Your task to perform on an android device: open app "Flipkart Online Shopping App" (install if not already installed), go to login, and select forgot password Image 0: 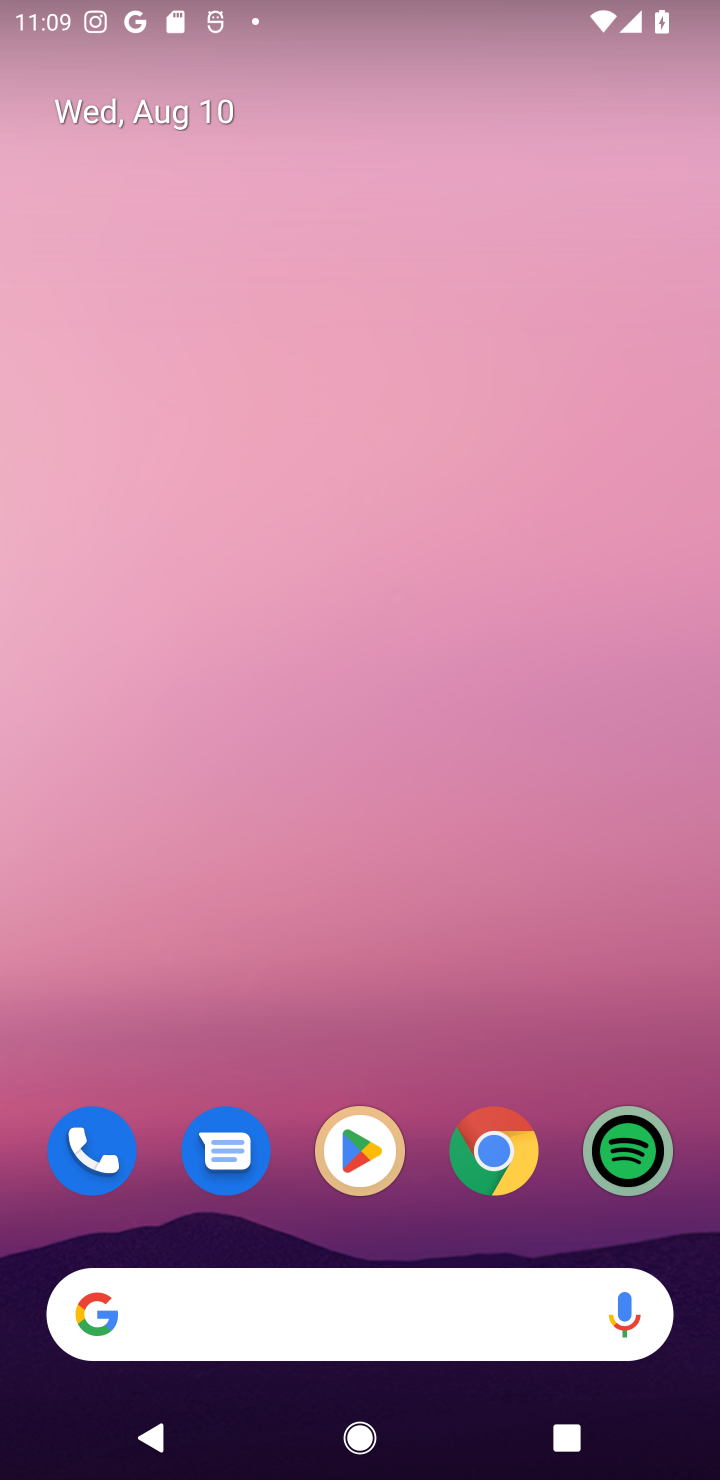
Step 0: click (322, 1140)
Your task to perform on an android device: open app "Flipkart Online Shopping App" (install if not already installed), go to login, and select forgot password Image 1: 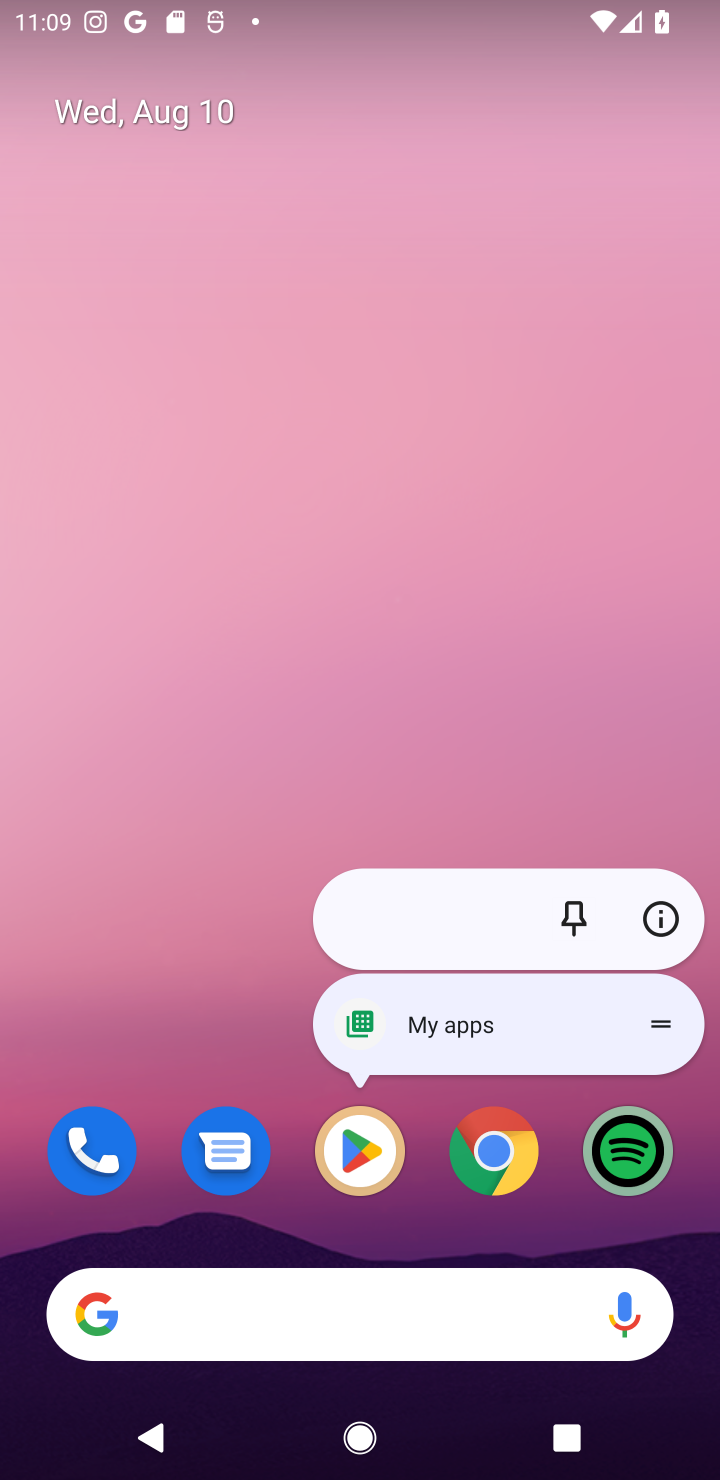
Step 1: click (362, 1150)
Your task to perform on an android device: open app "Flipkart Online Shopping App" (install if not already installed), go to login, and select forgot password Image 2: 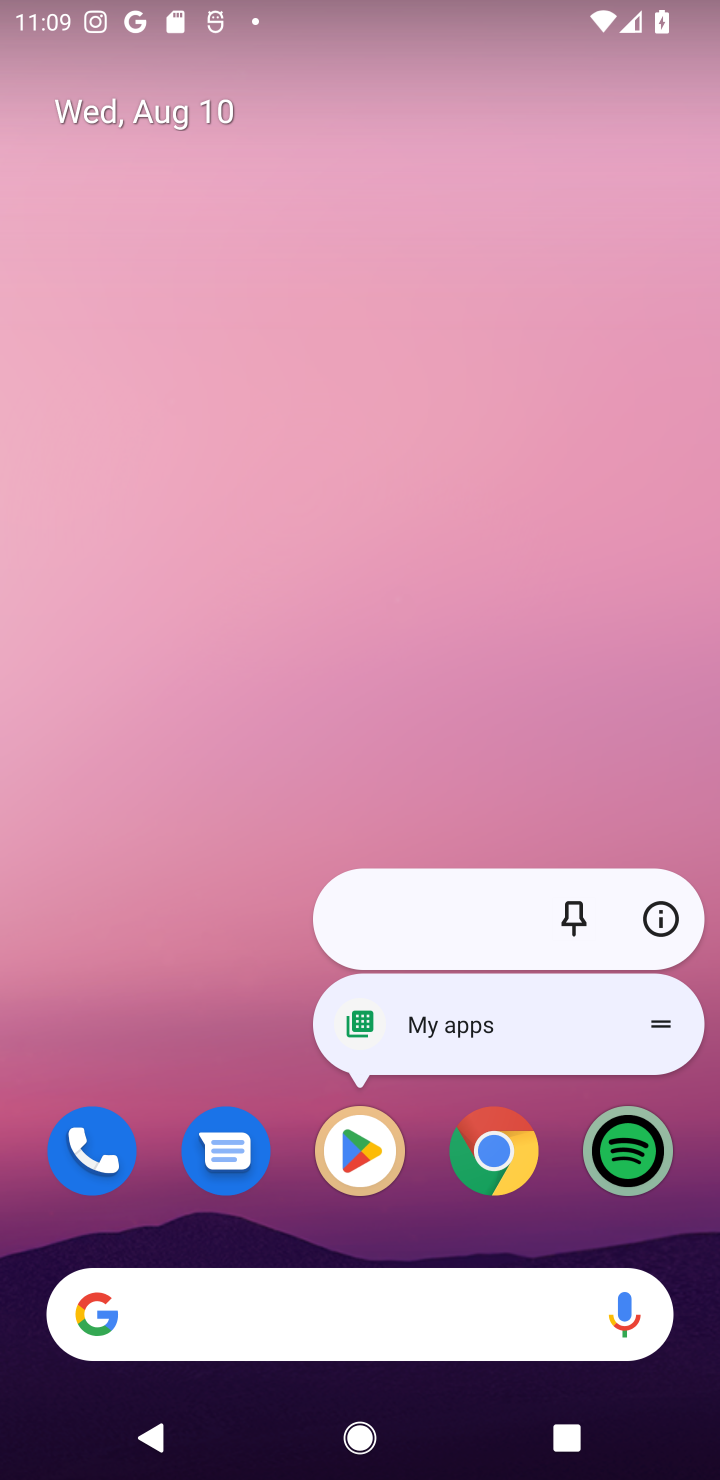
Step 2: click (362, 1150)
Your task to perform on an android device: open app "Flipkart Online Shopping App" (install if not already installed), go to login, and select forgot password Image 3: 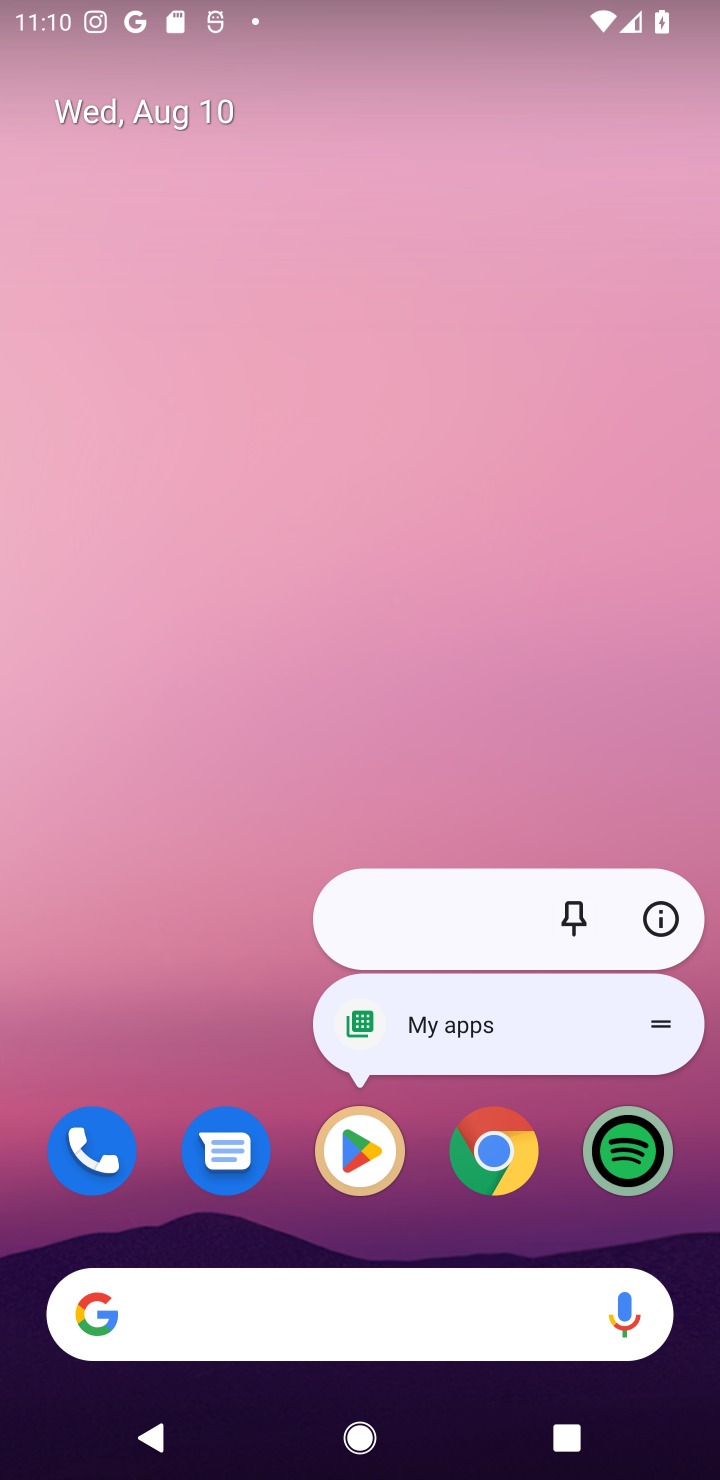
Step 3: click (376, 1146)
Your task to perform on an android device: open app "Flipkart Online Shopping App" (install if not already installed), go to login, and select forgot password Image 4: 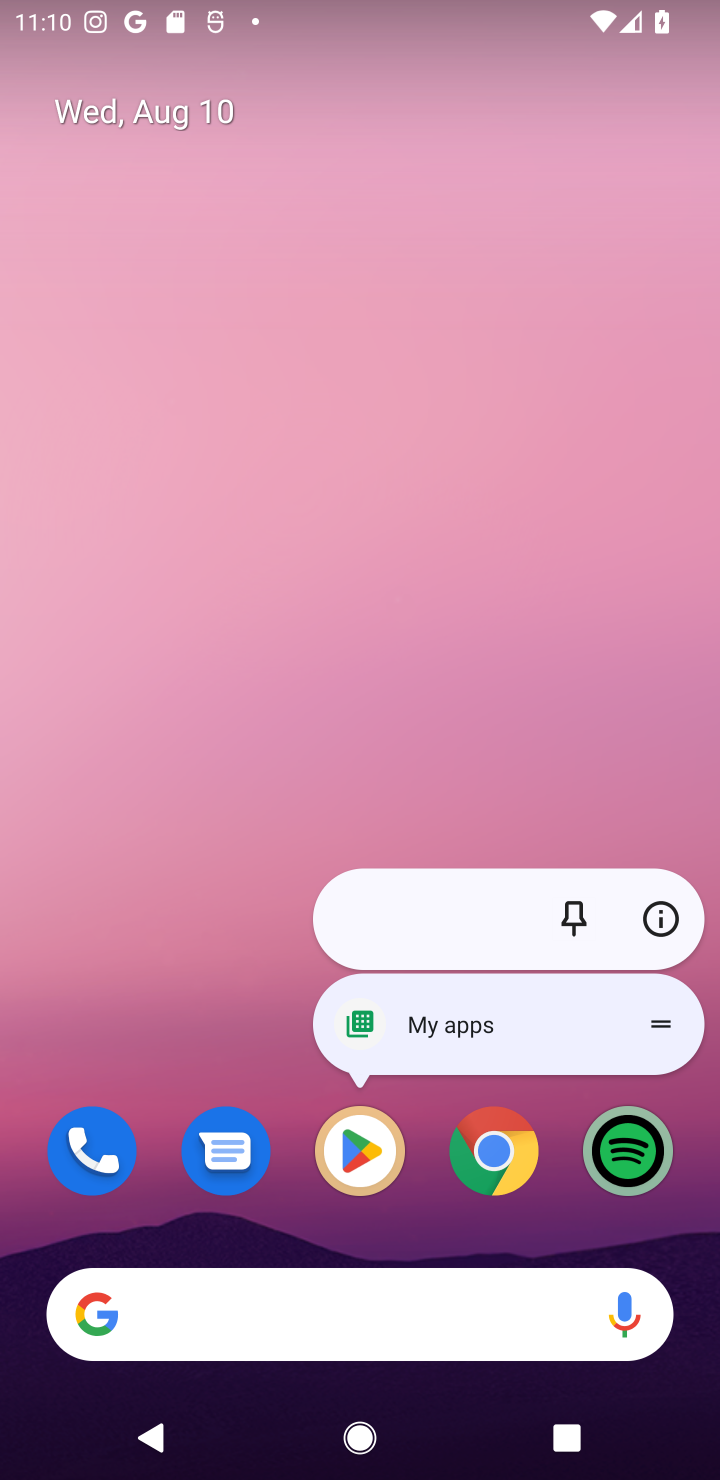
Step 4: click (363, 1154)
Your task to perform on an android device: open app "Flipkart Online Shopping App" (install if not already installed), go to login, and select forgot password Image 5: 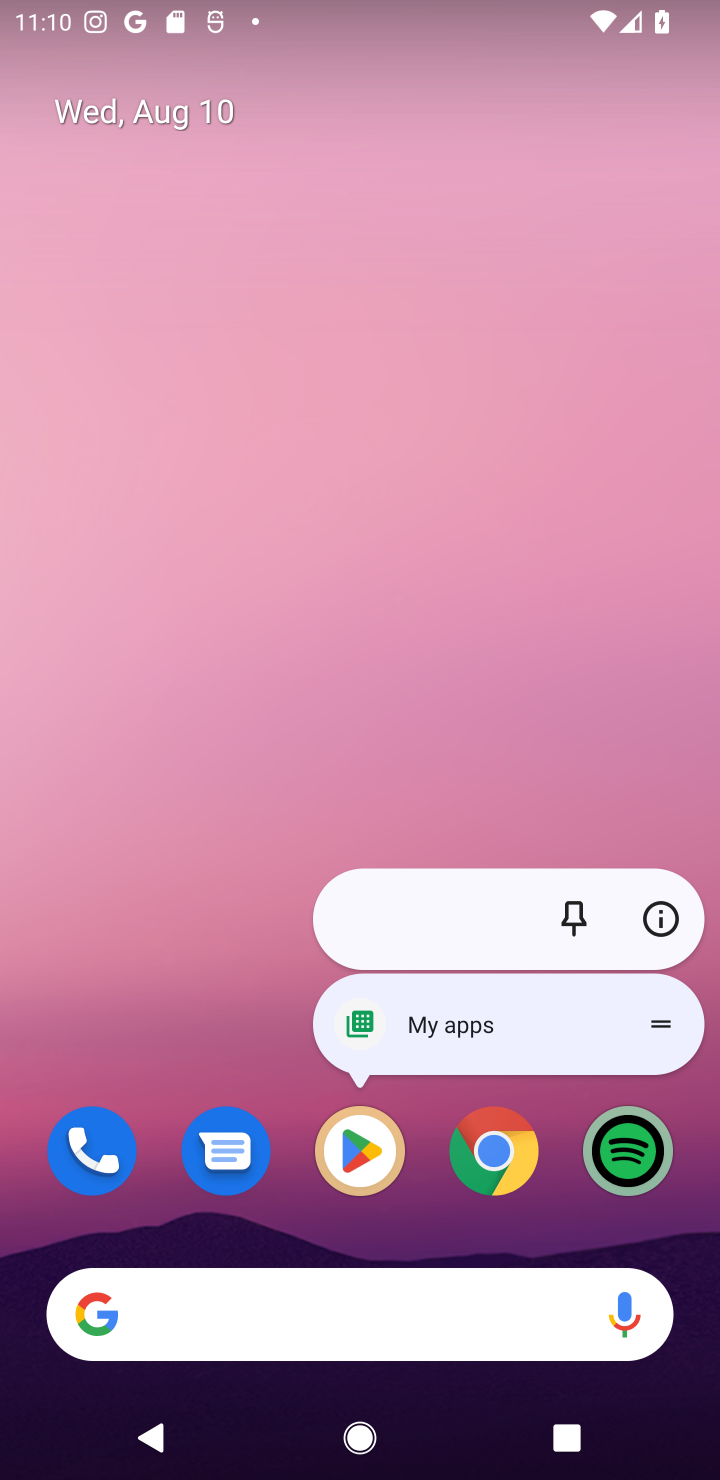
Step 5: click (370, 1163)
Your task to perform on an android device: open app "Flipkart Online Shopping App" (install if not already installed), go to login, and select forgot password Image 6: 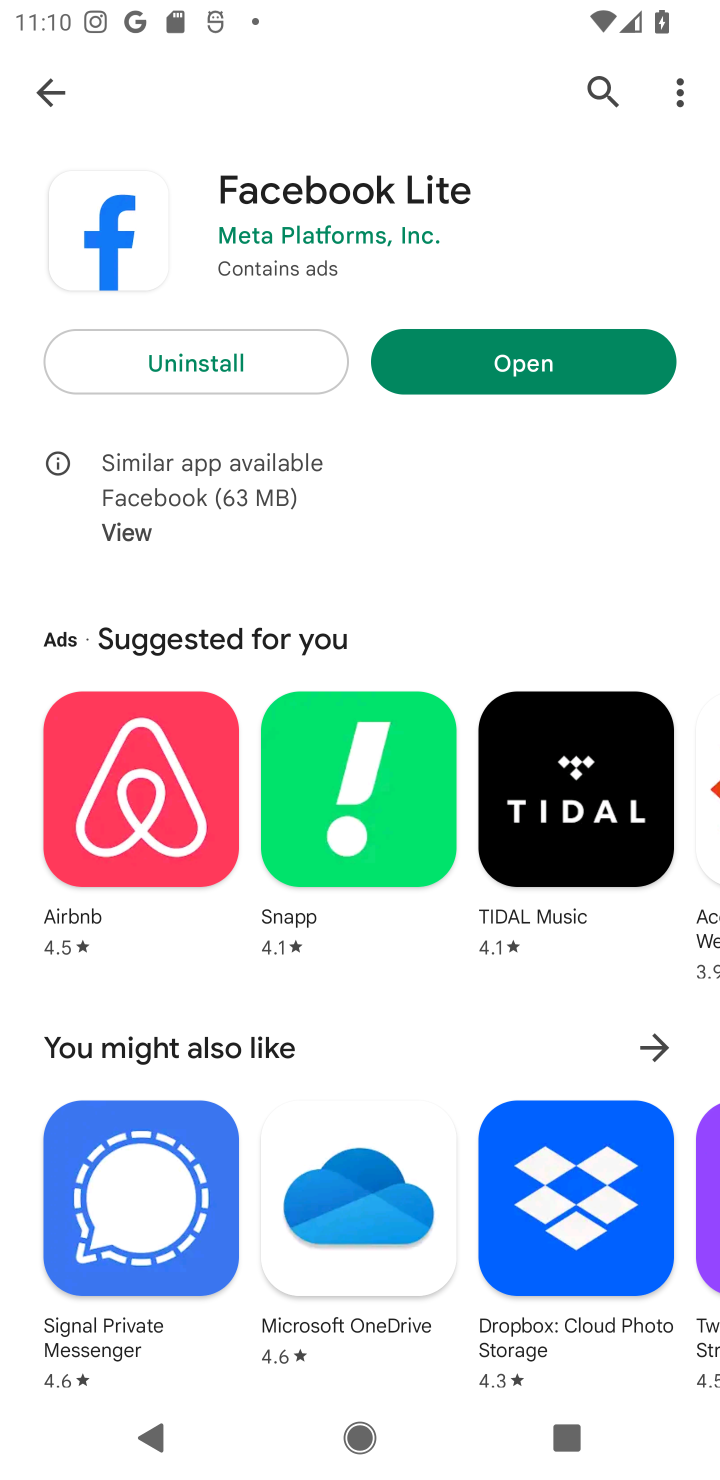
Step 6: click (601, 94)
Your task to perform on an android device: open app "Flipkart Online Shopping App" (install if not already installed), go to login, and select forgot password Image 7: 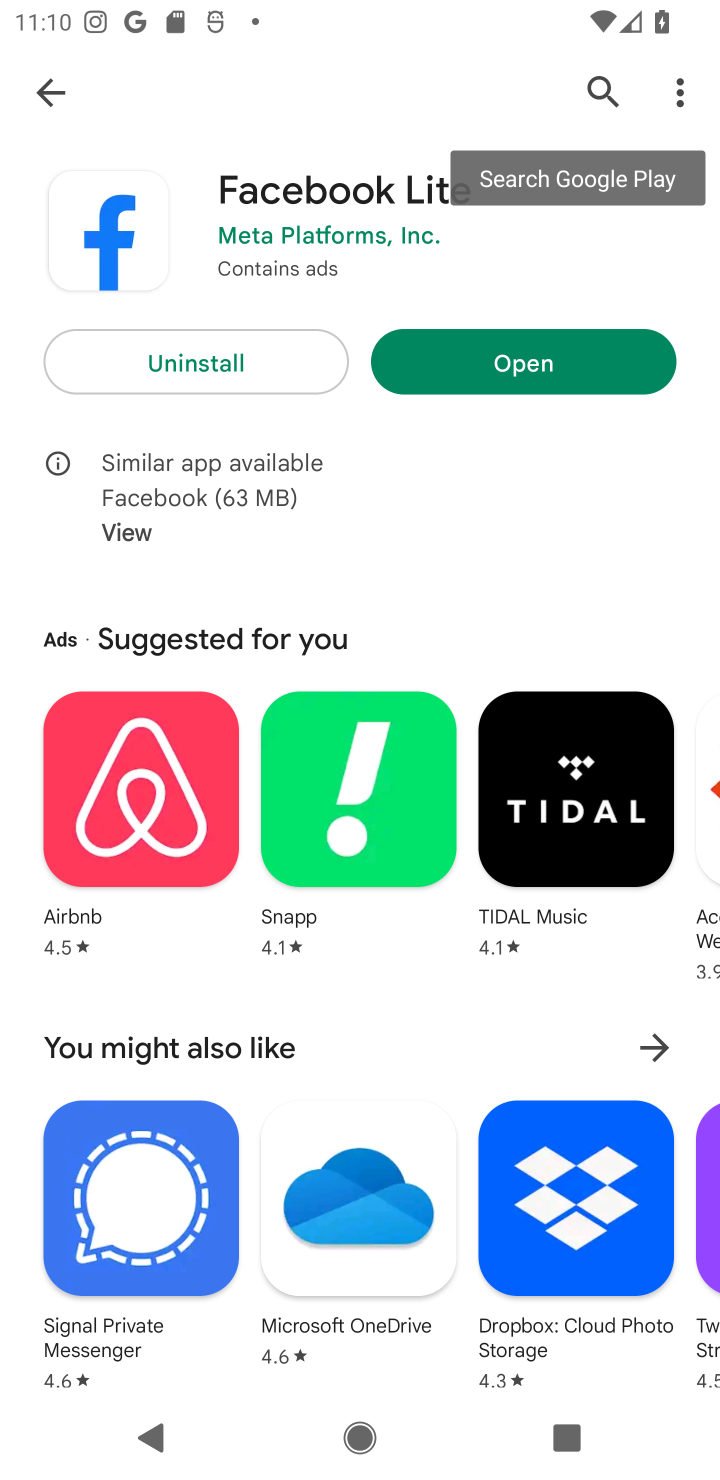
Step 7: click (616, 71)
Your task to perform on an android device: open app "Flipkart Online Shopping App" (install if not already installed), go to login, and select forgot password Image 8: 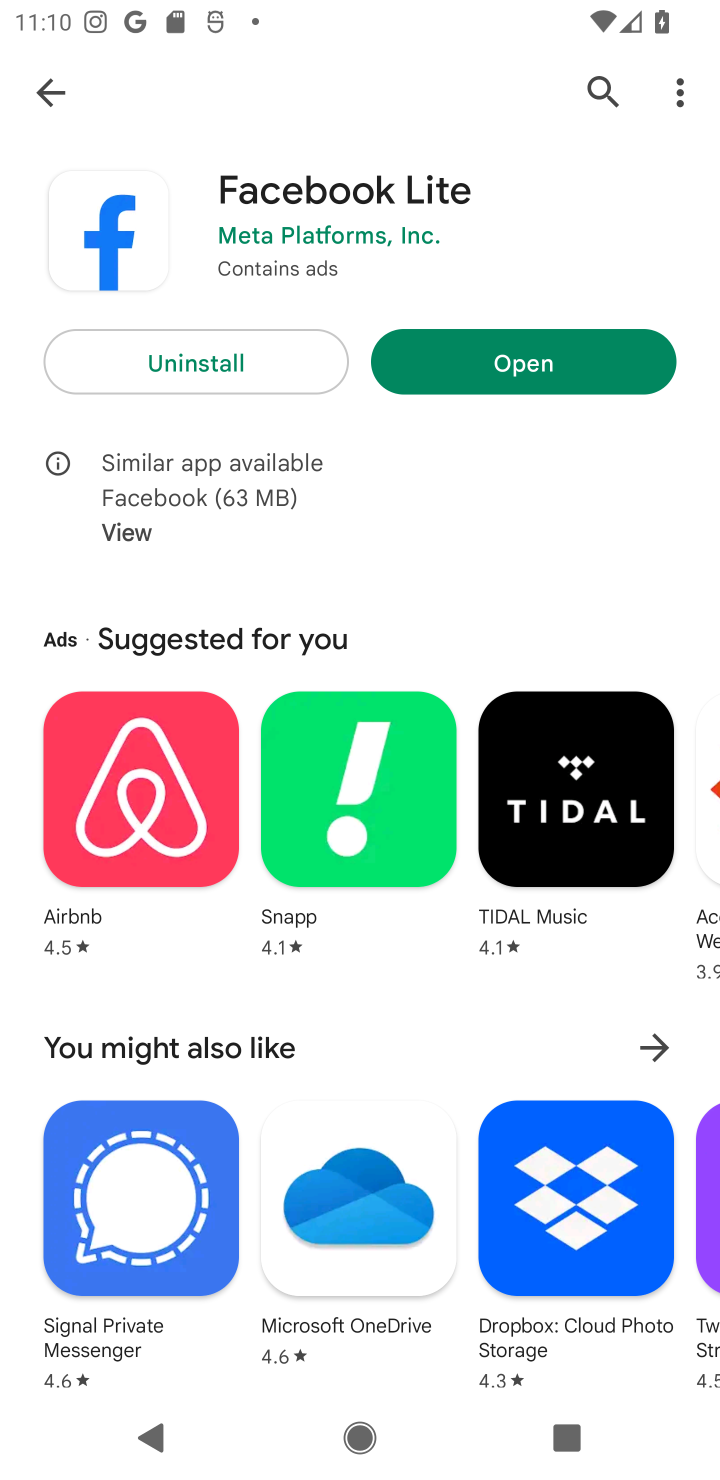
Step 8: press back button
Your task to perform on an android device: open app "Flipkart Online Shopping App" (install if not already installed), go to login, and select forgot password Image 9: 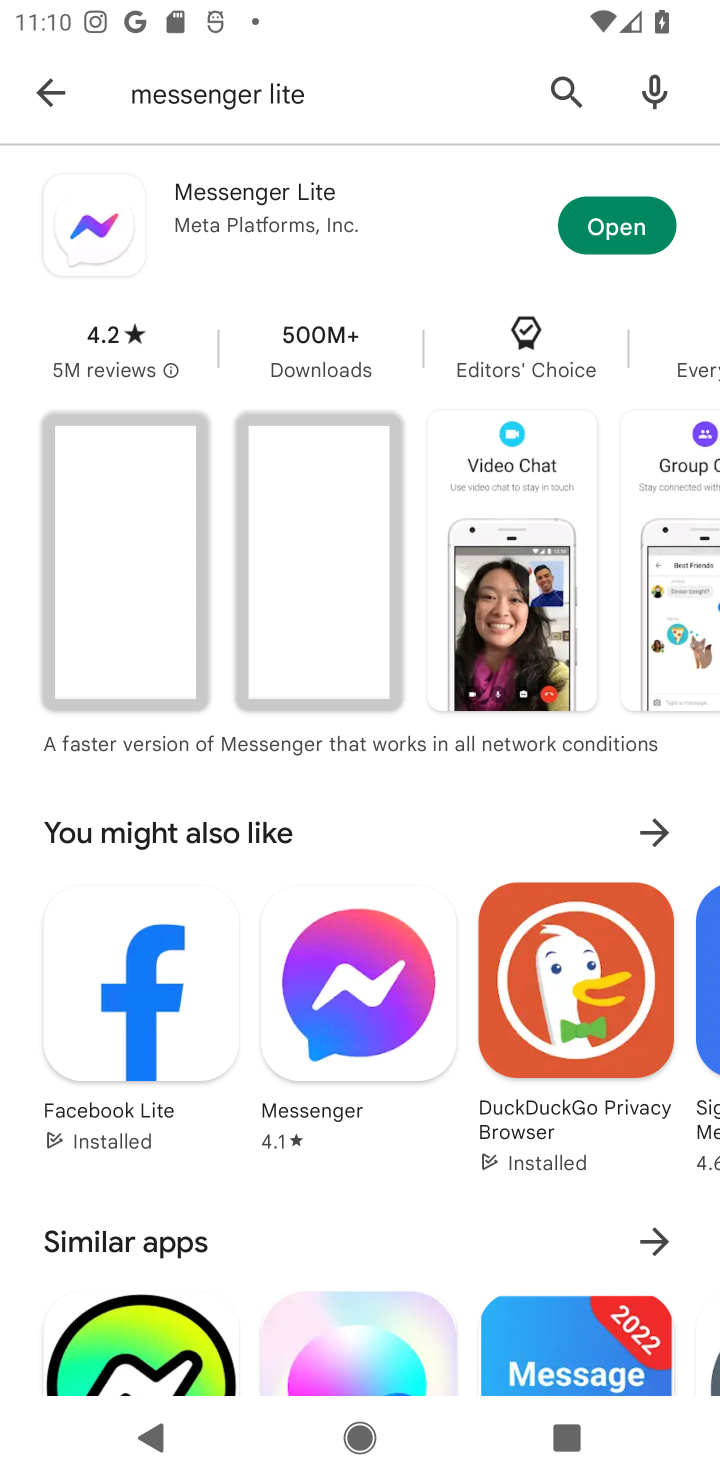
Step 9: click (556, 88)
Your task to perform on an android device: open app "Flipkart Online Shopping App" (install if not already installed), go to login, and select forgot password Image 10: 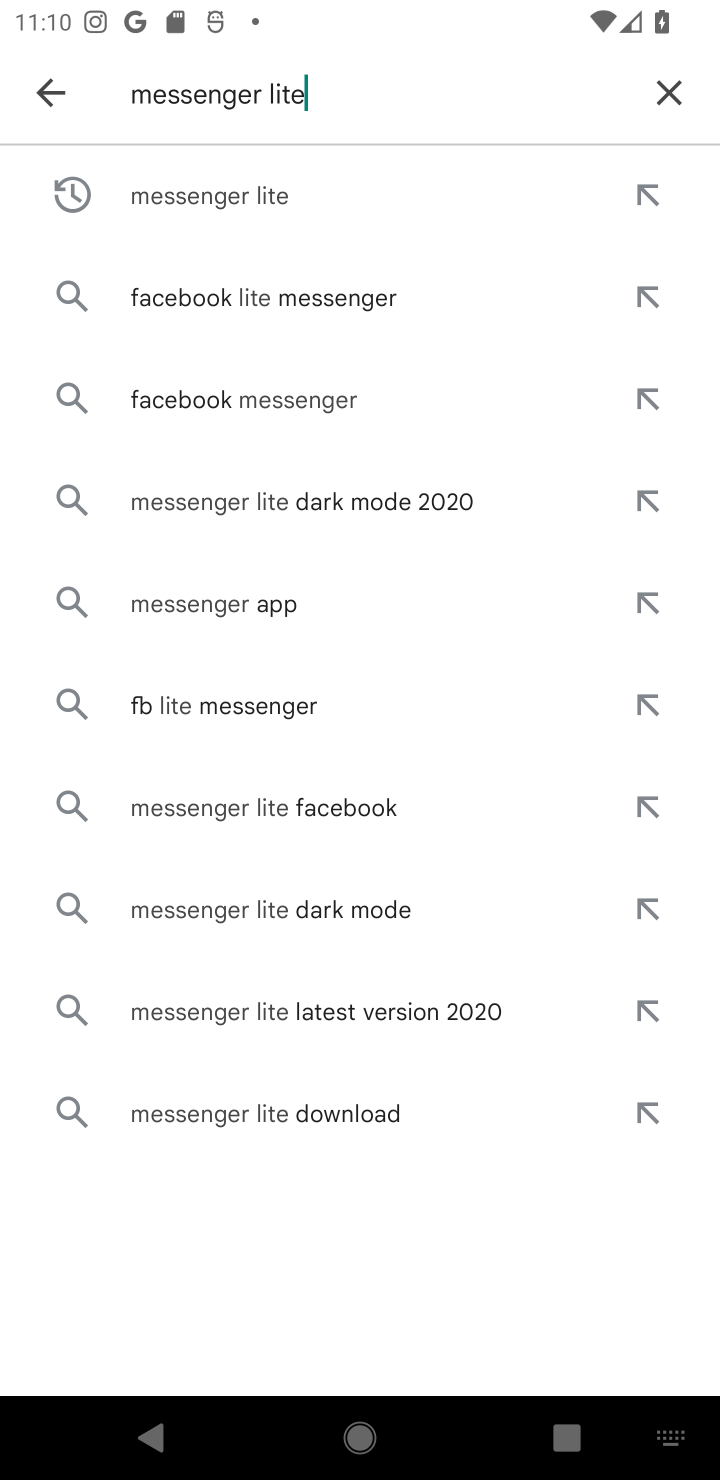
Step 10: click (682, 78)
Your task to perform on an android device: open app "Flipkart Online Shopping App" (install if not already installed), go to login, and select forgot password Image 11: 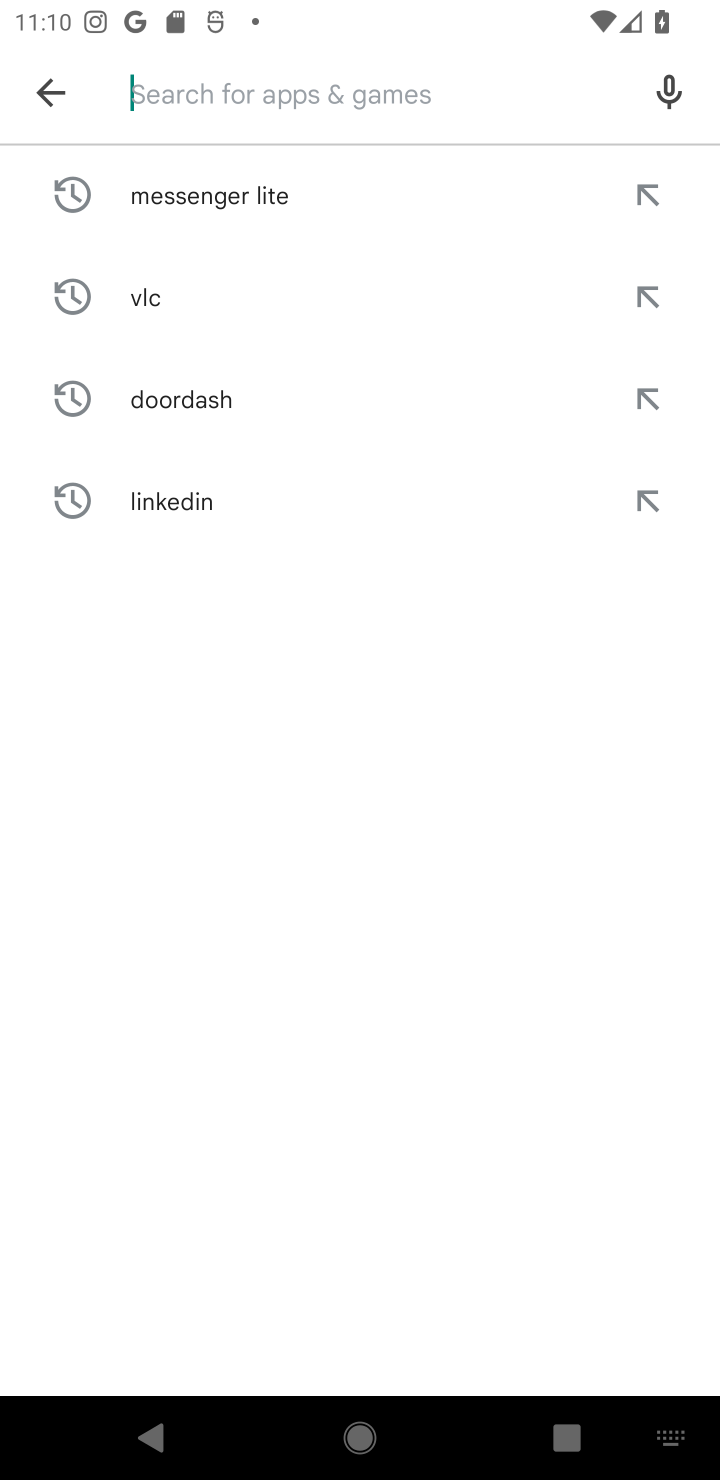
Step 11: click (248, 63)
Your task to perform on an android device: open app "Flipkart Online Shopping App" (install if not already installed), go to login, and select forgot password Image 12: 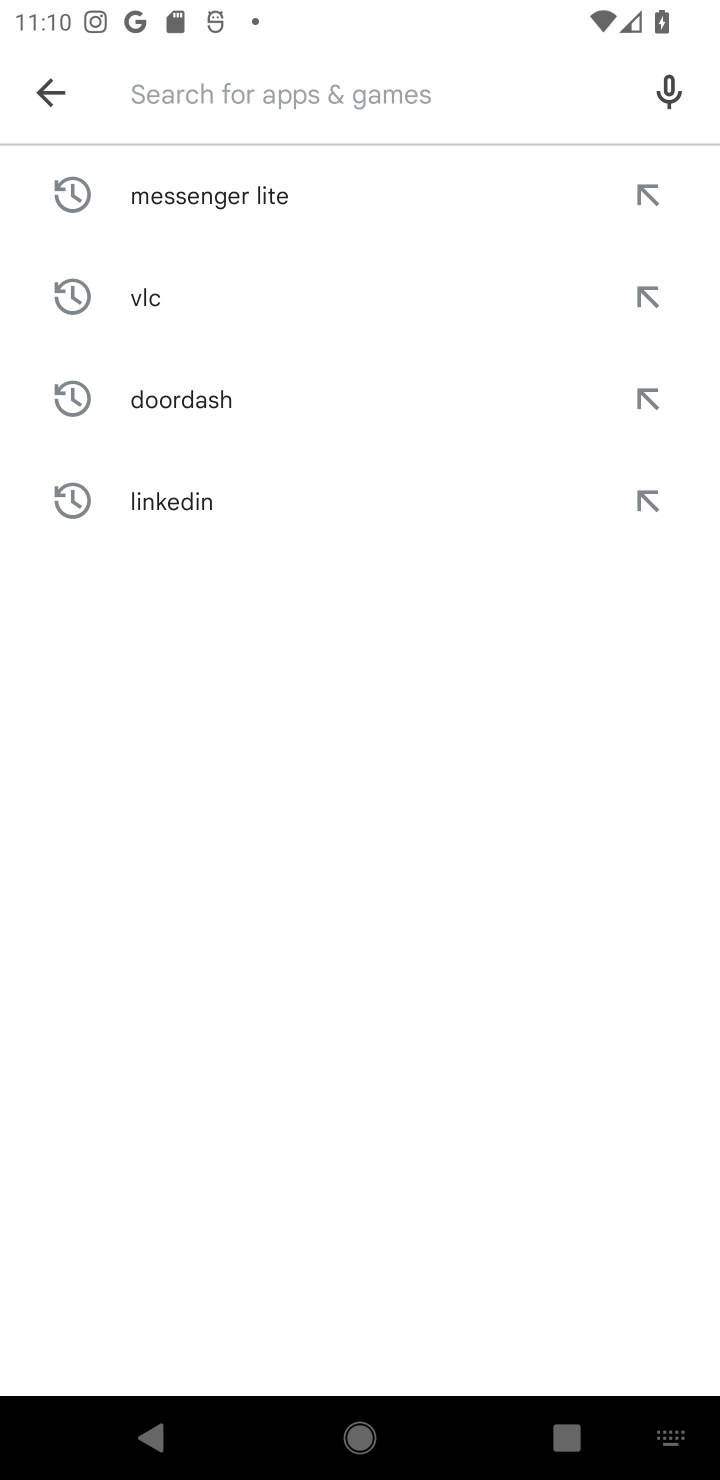
Step 12: type "Flipkart Online Shopping App"
Your task to perform on an android device: open app "Flipkart Online Shopping App" (install if not already installed), go to login, and select forgot password Image 13: 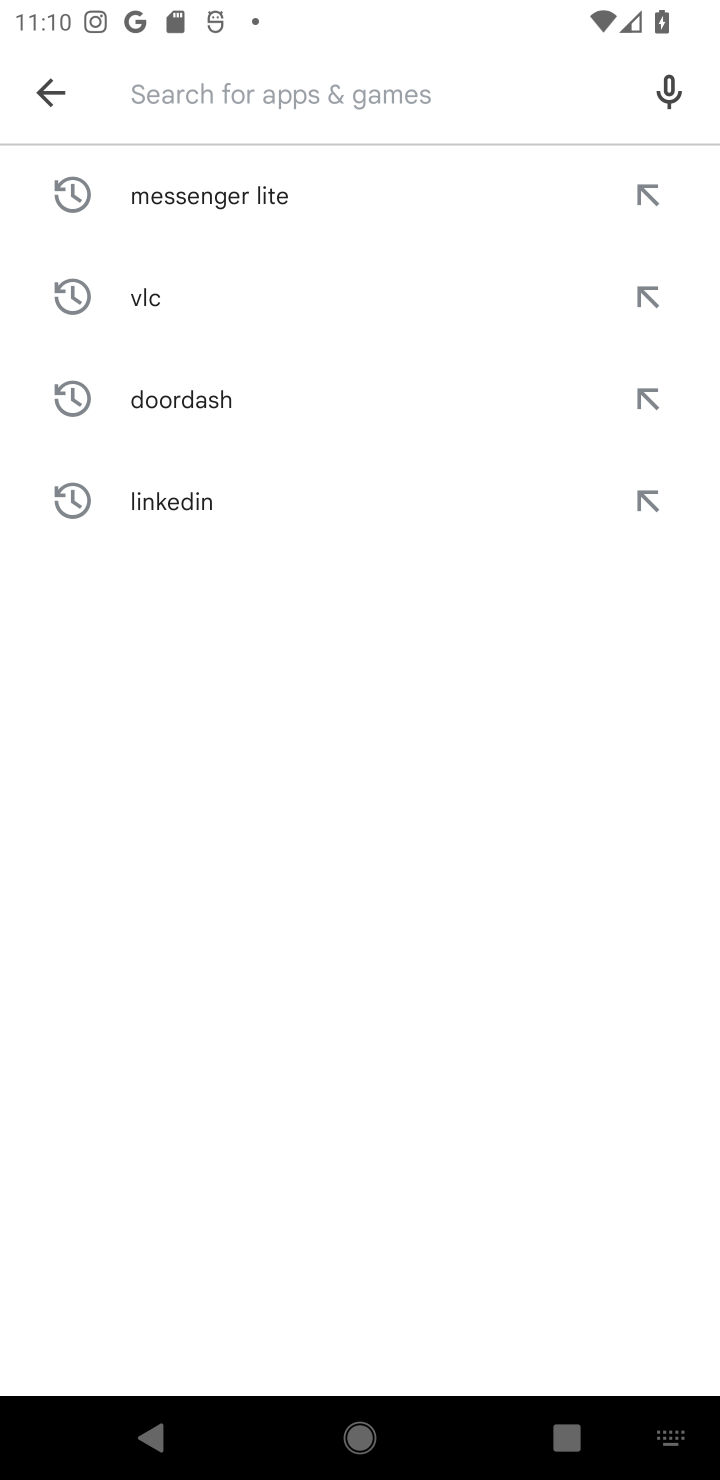
Step 13: click (448, 799)
Your task to perform on an android device: open app "Flipkart Online Shopping App" (install if not already installed), go to login, and select forgot password Image 14: 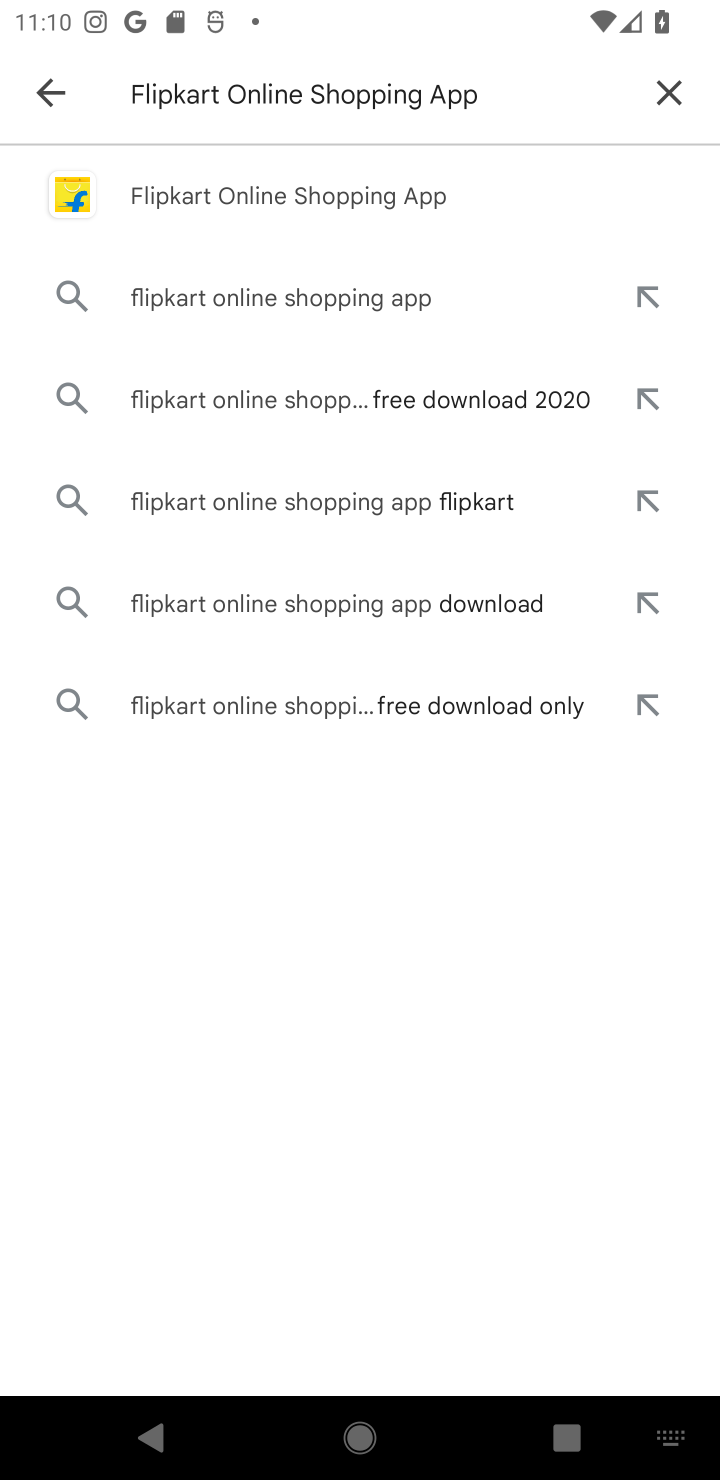
Step 14: click (262, 187)
Your task to perform on an android device: open app "Flipkart Online Shopping App" (install if not already installed), go to login, and select forgot password Image 15: 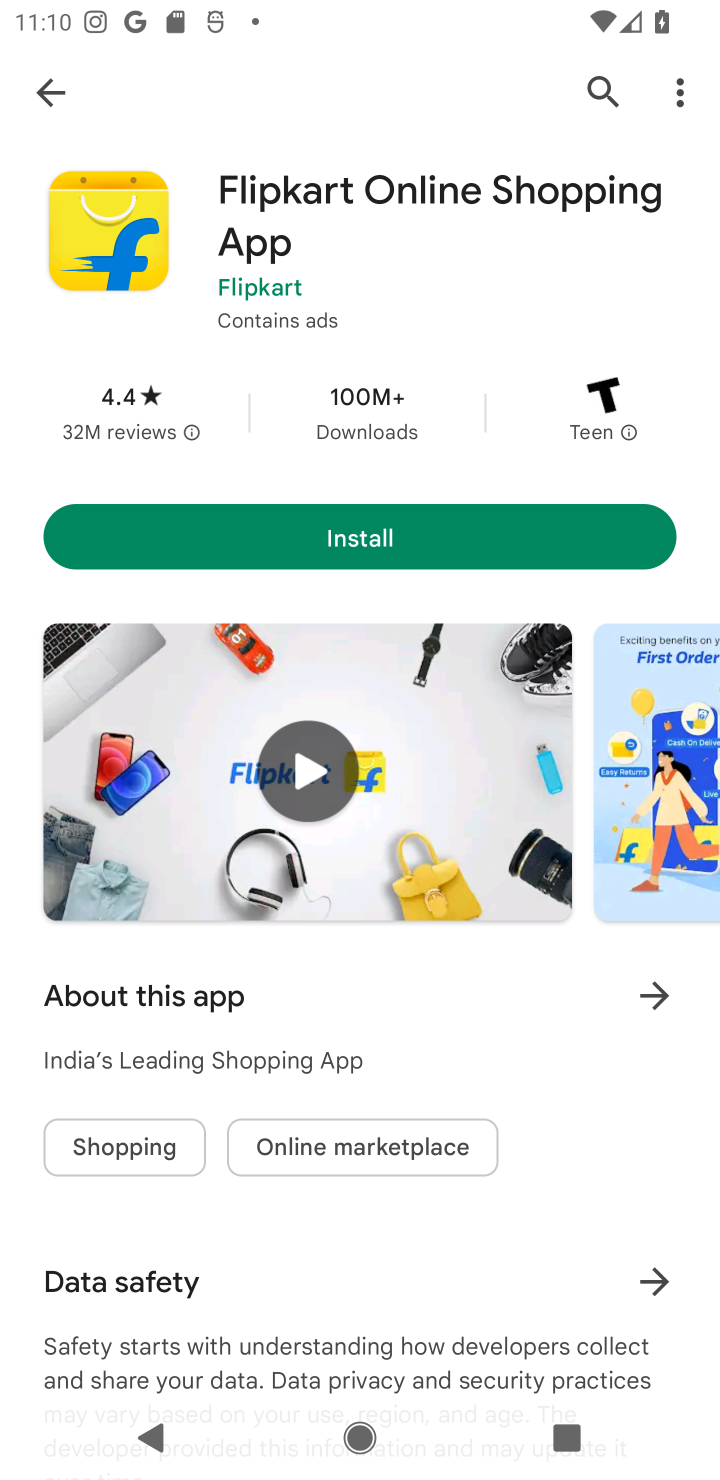
Step 15: click (355, 541)
Your task to perform on an android device: open app "Flipkart Online Shopping App" (install if not already installed), go to login, and select forgot password Image 16: 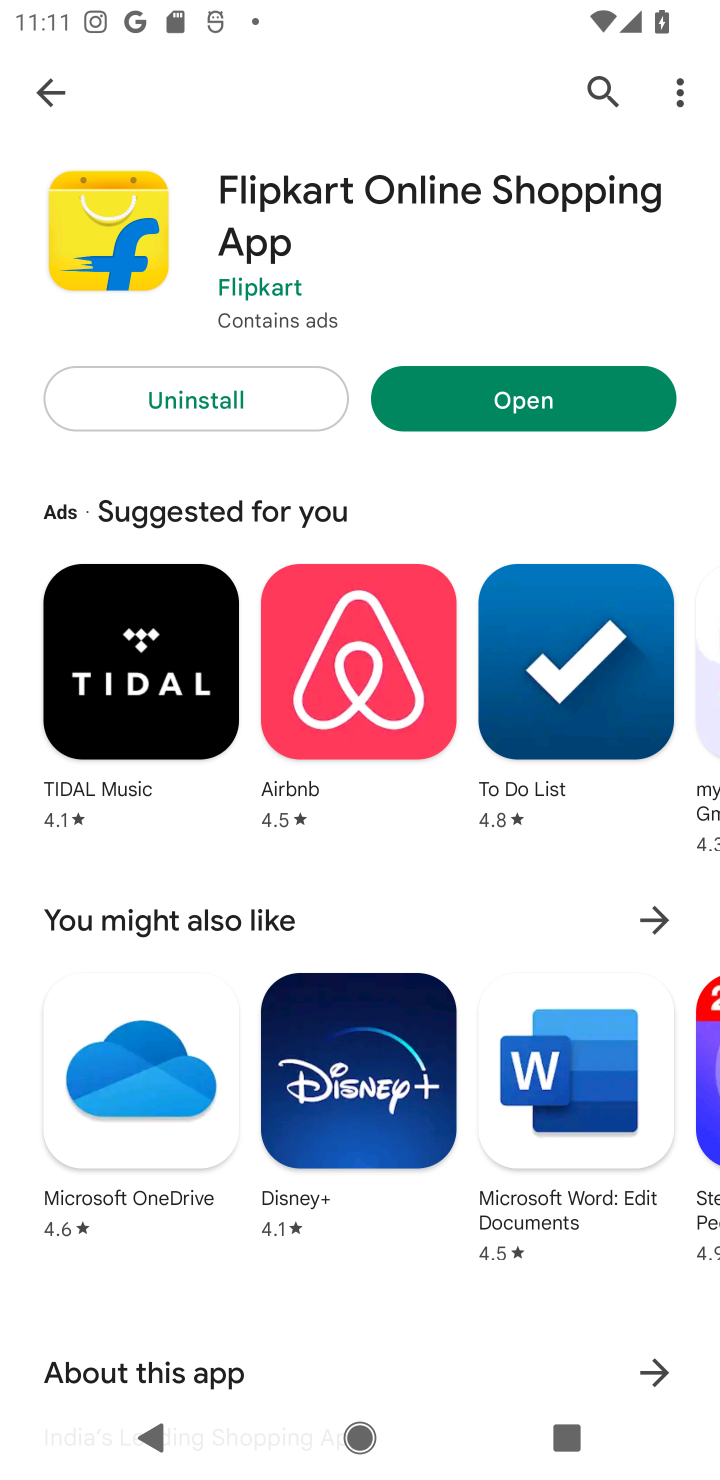
Step 16: click (523, 400)
Your task to perform on an android device: open app "Flipkart Online Shopping App" (install if not already installed), go to login, and select forgot password Image 17: 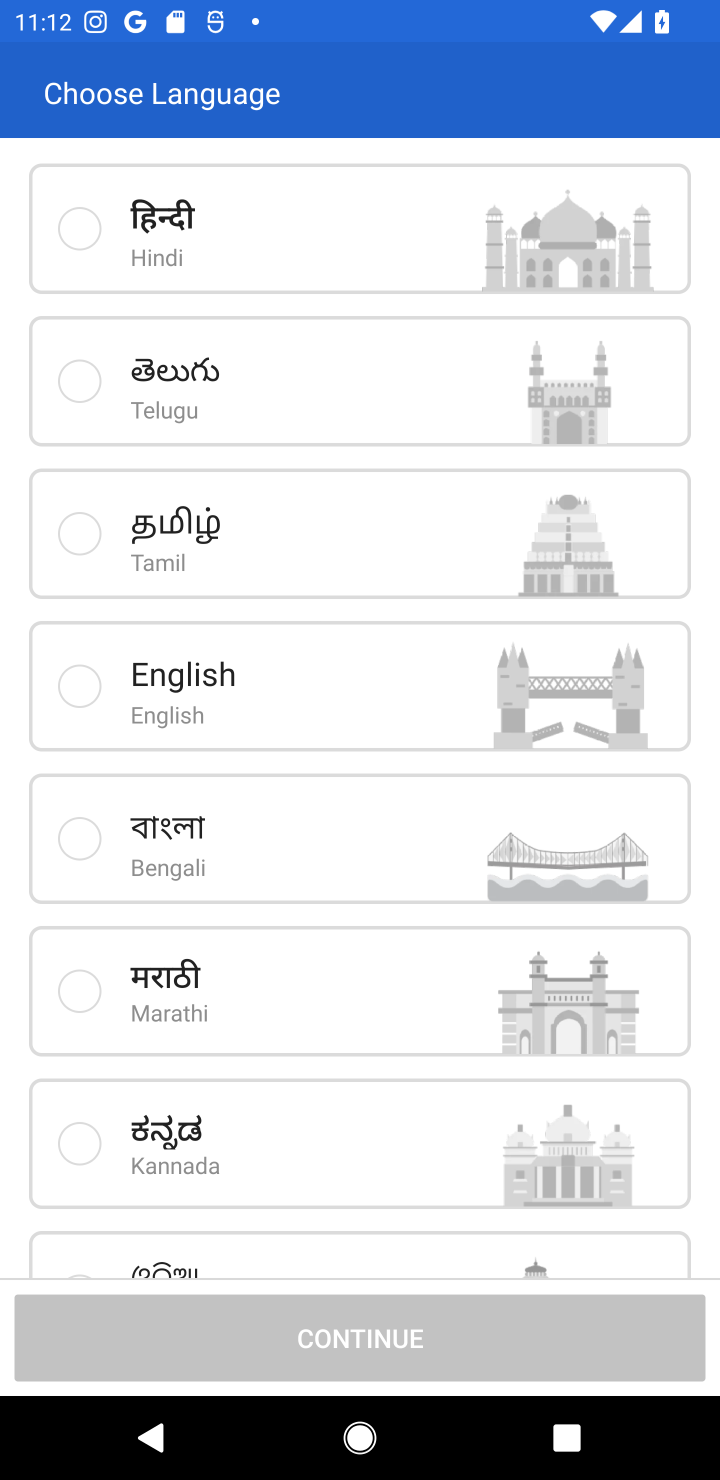
Step 17: click (72, 707)
Your task to perform on an android device: open app "Flipkart Online Shopping App" (install if not already installed), go to login, and select forgot password Image 18: 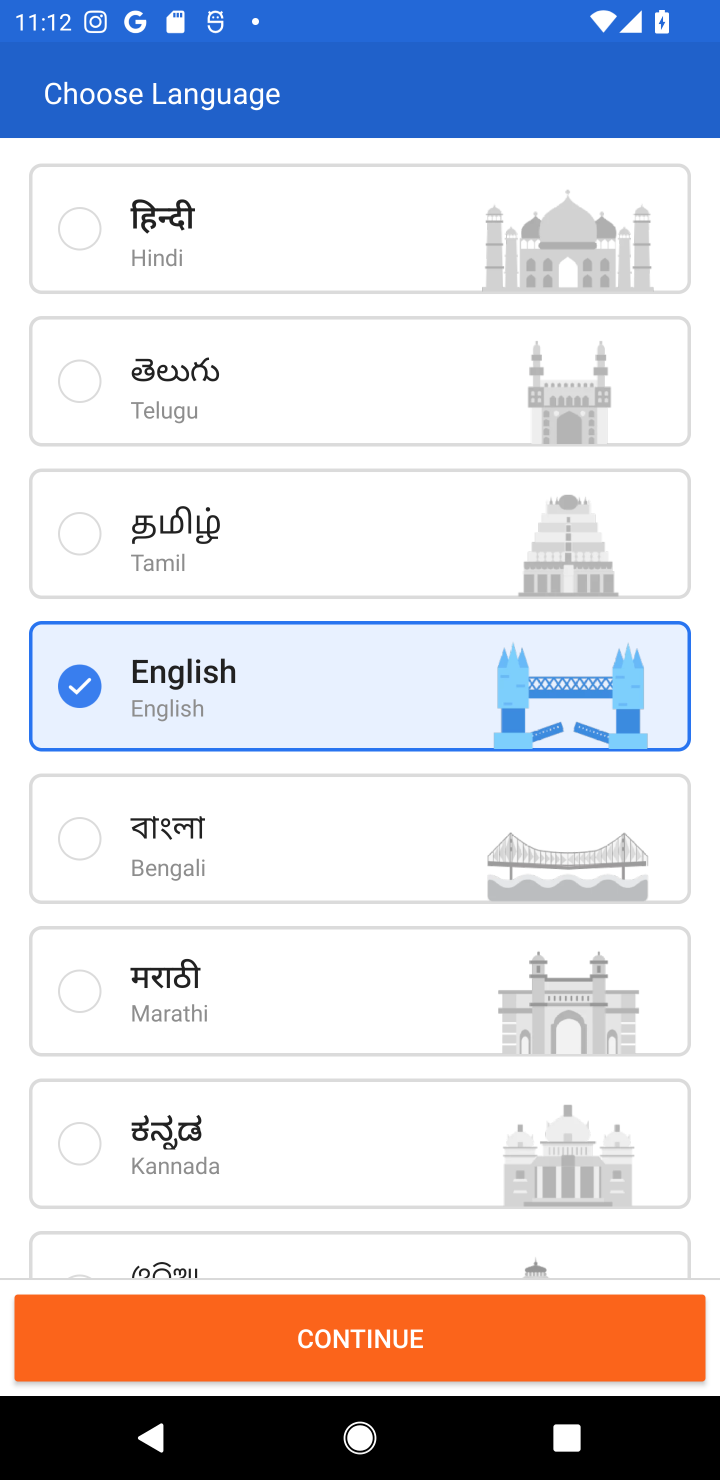
Step 18: click (334, 1327)
Your task to perform on an android device: open app "Flipkart Online Shopping App" (install if not already installed), go to login, and select forgot password Image 19: 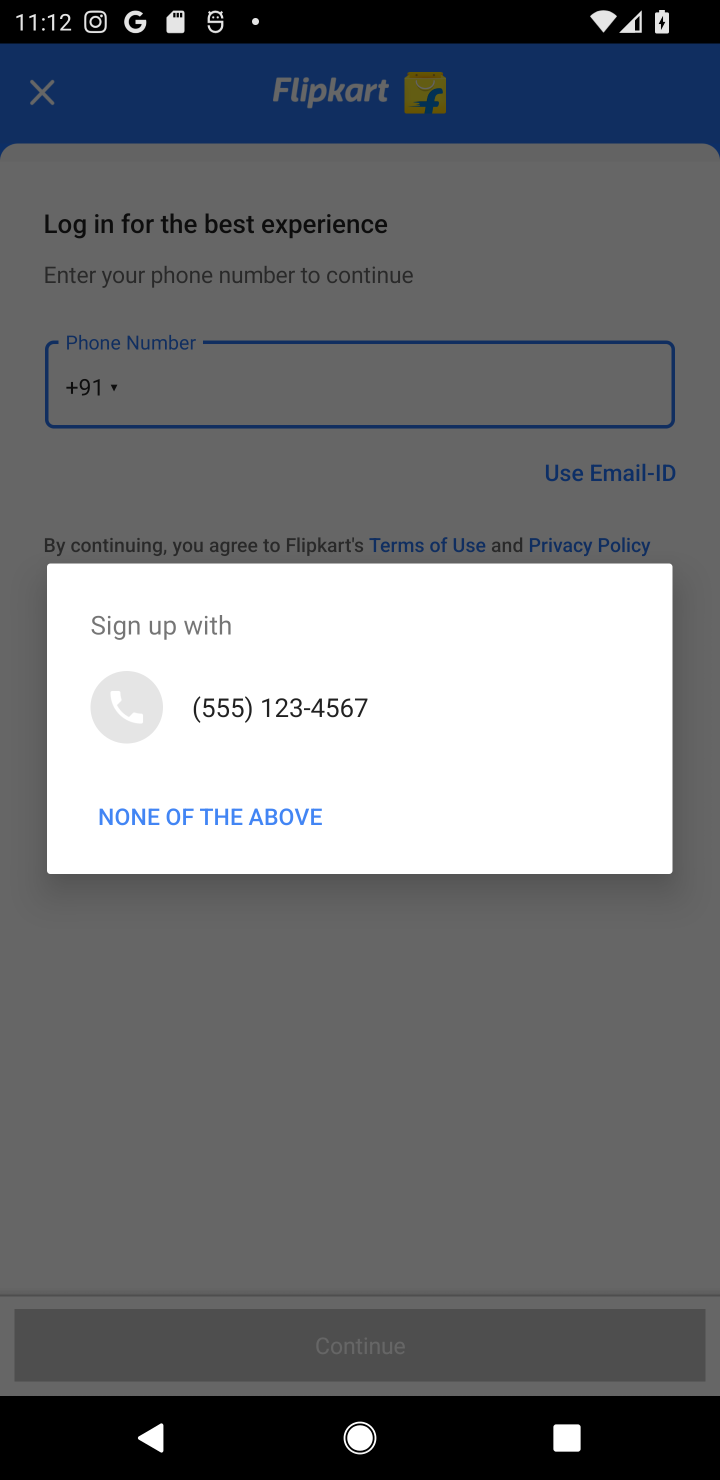
Step 19: task complete